Your task to perform on an android device: Search for Italian restaurants on Maps Image 0: 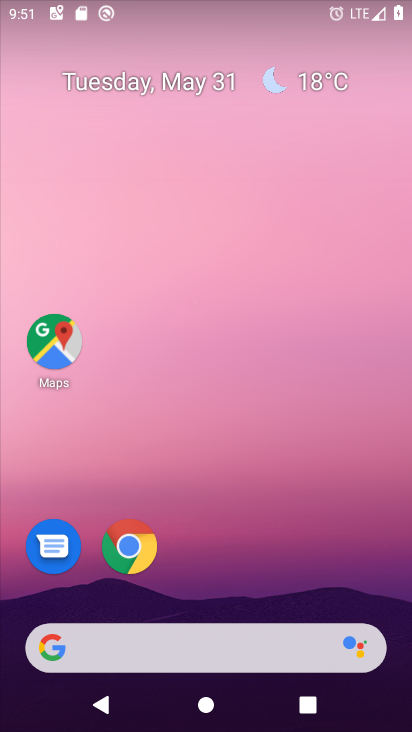
Step 0: click (59, 340)
Your task to perform on an android device: Search for Italian restaurants on Maps Image 1: 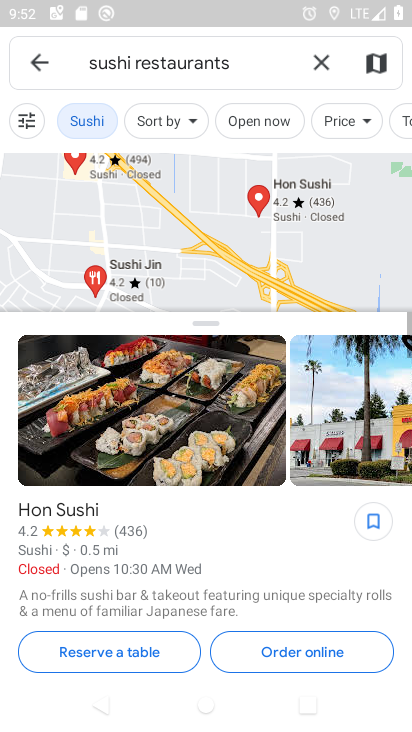
Step 1: click (112, 62)
Your task to perform on an android device: Search for Italian restaurants on Maps Image 2: 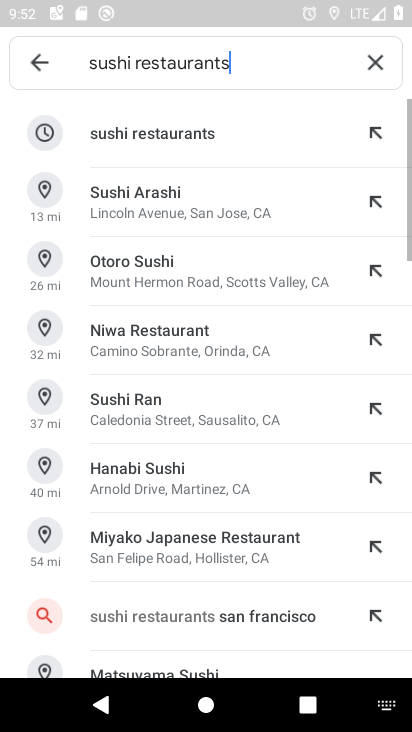
Step 2: click (112, 62)
Your task to perform on an android device: Search for Italian restaurants on Maps Image 3: 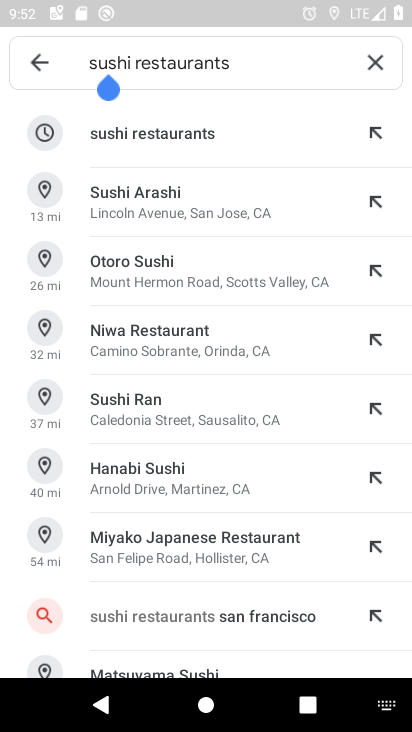
Step 3: click (112, 62)
Your task to perform on an android device: Search for Italian restaurants on Maps Image 4: 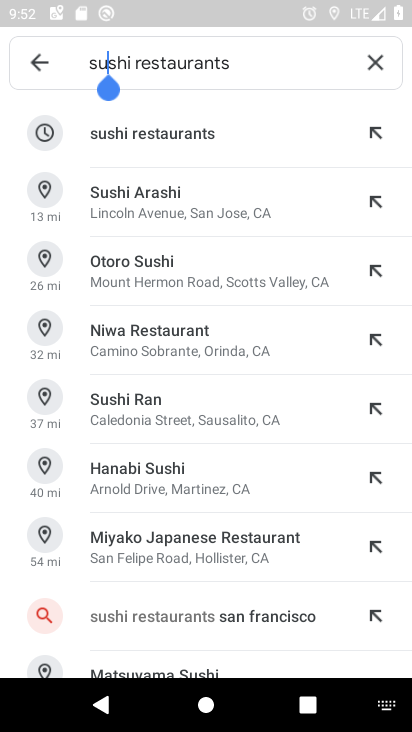
Step 4: click (112, 62)
Your task to perform on an android device: Search for Italian restaurants on Maps Image 5: 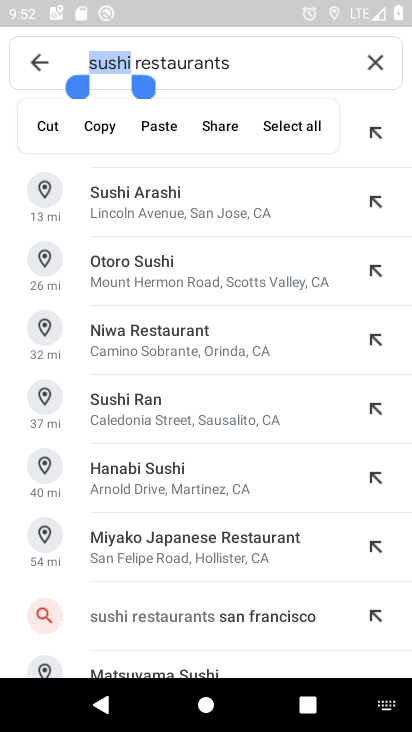
Step 5: type "italian"
Your task to perform on an android device: Search for Italian restaurants on Maps Image 6: 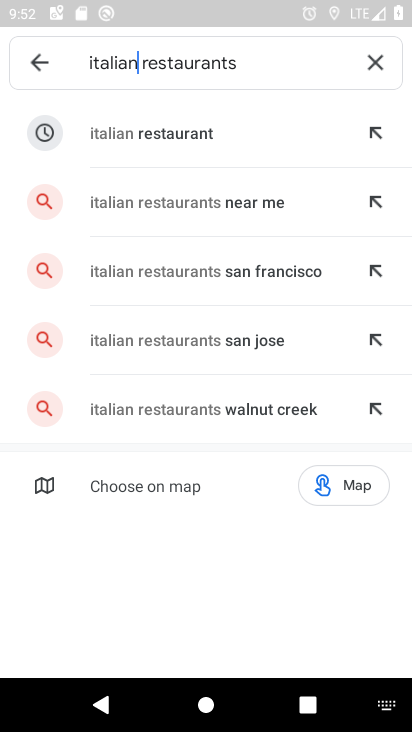
Step 6: click (200, 147)
Your task to perform on an android device: Search for Italian restaurants on Maps Image 7: 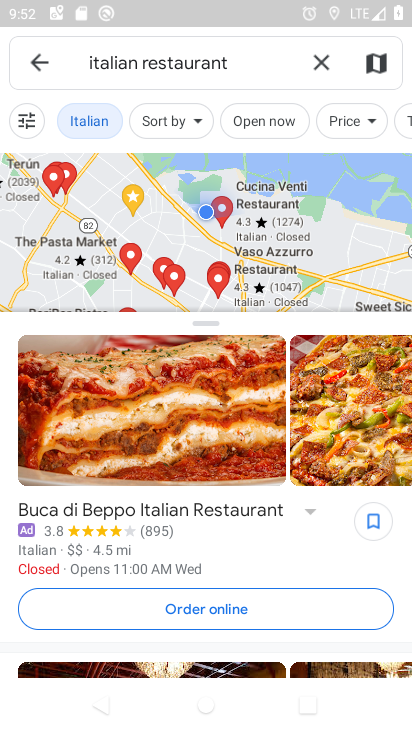
Step 7: task complete